Your task to perform on an android device: Open Amazon Image 0: 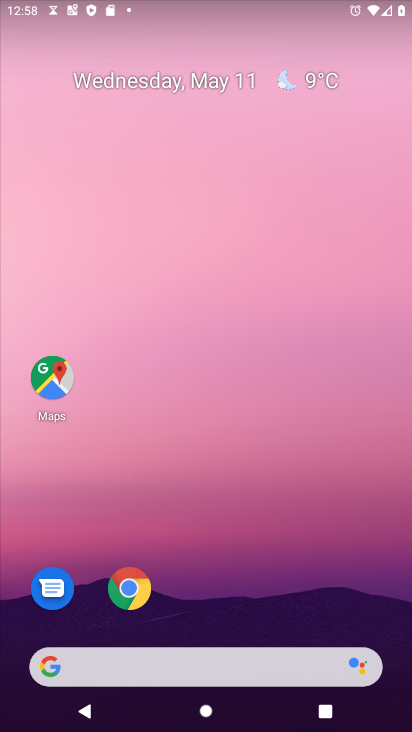
Step 0: click (134, 594)
Your task to perform on an android device: Open Amazon Image 1: 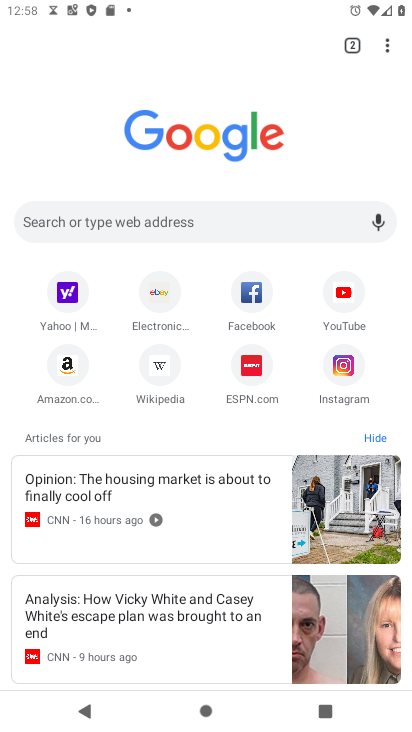
Step 1: click (68, 371)
Your task to perform on an android device: Open Amazon Image 2: 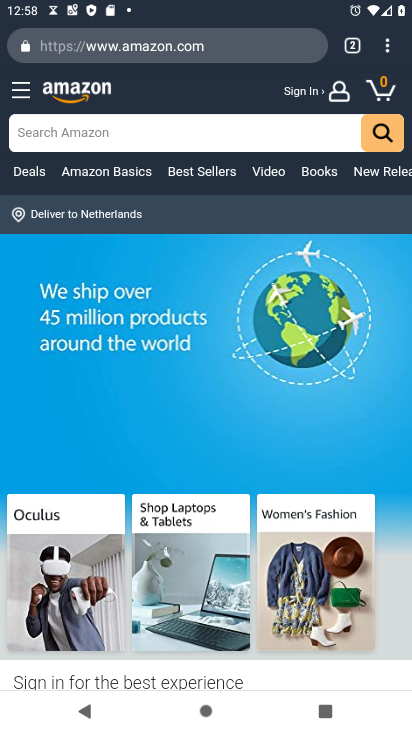
Step 2: task complete